Your task to perform on an android device: toggle pop-ups in chrome Image 0: 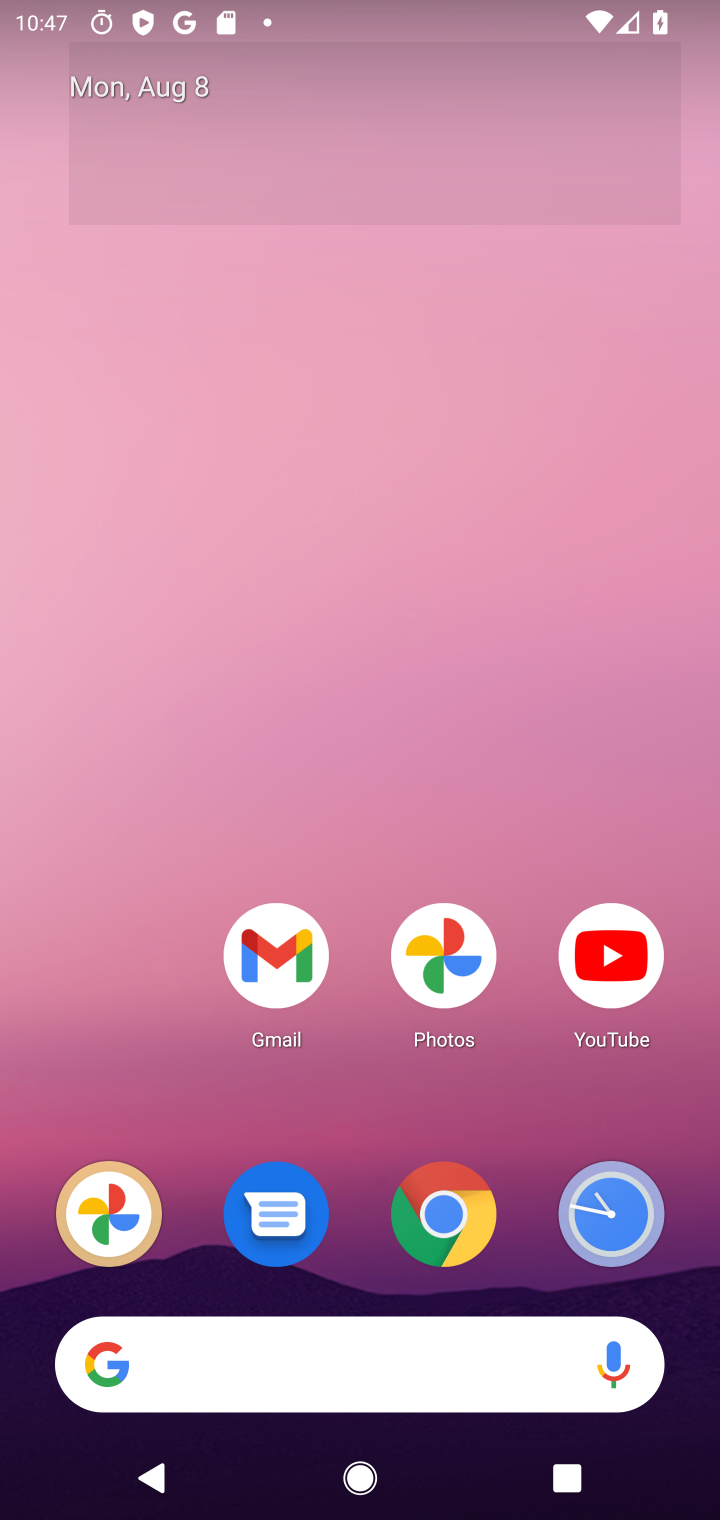
Step 0: click (470, 1223)
Your task to perform on an android device: toggle pop-ups in chrome Image 1: 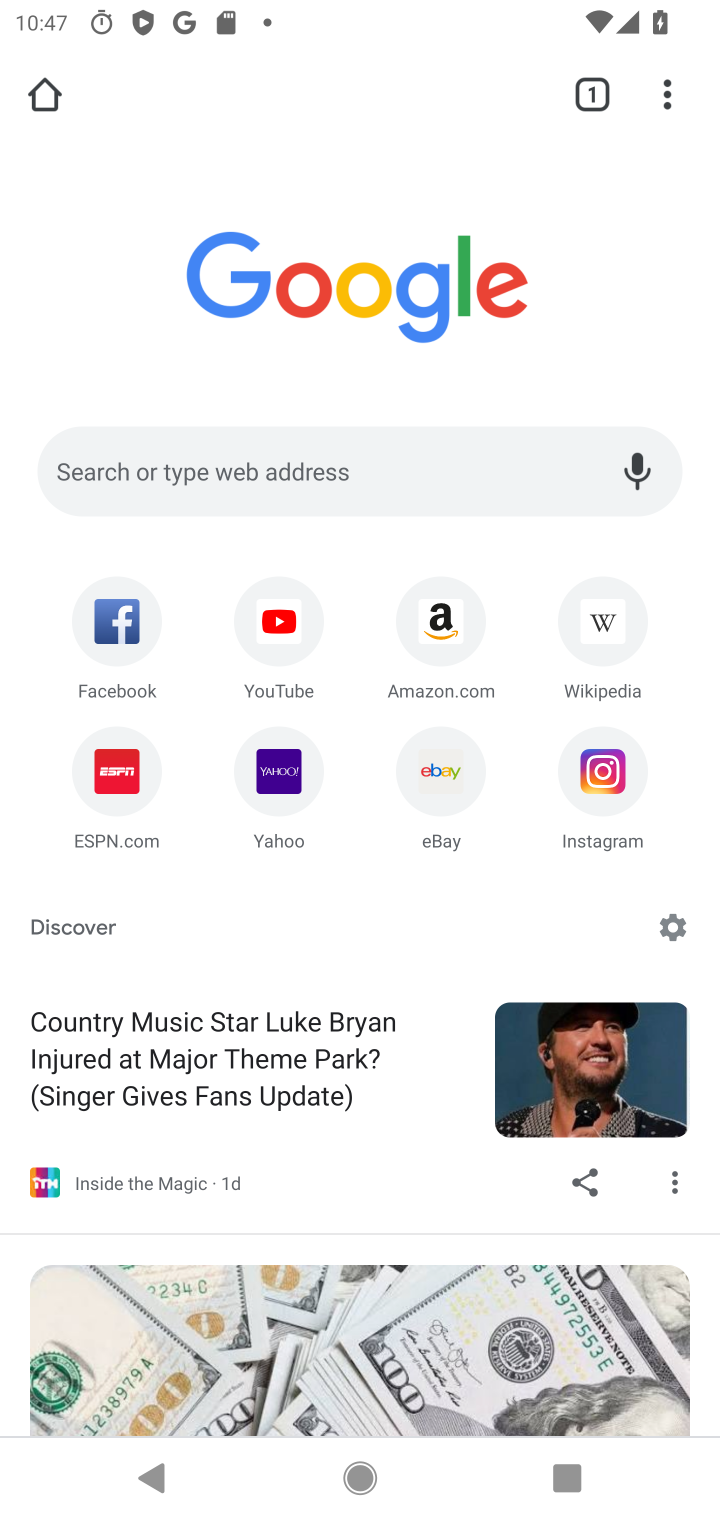
Step 1: click (666, 78)
Your task to perform on an android device: toggle pop-ups in chrome Image 2: 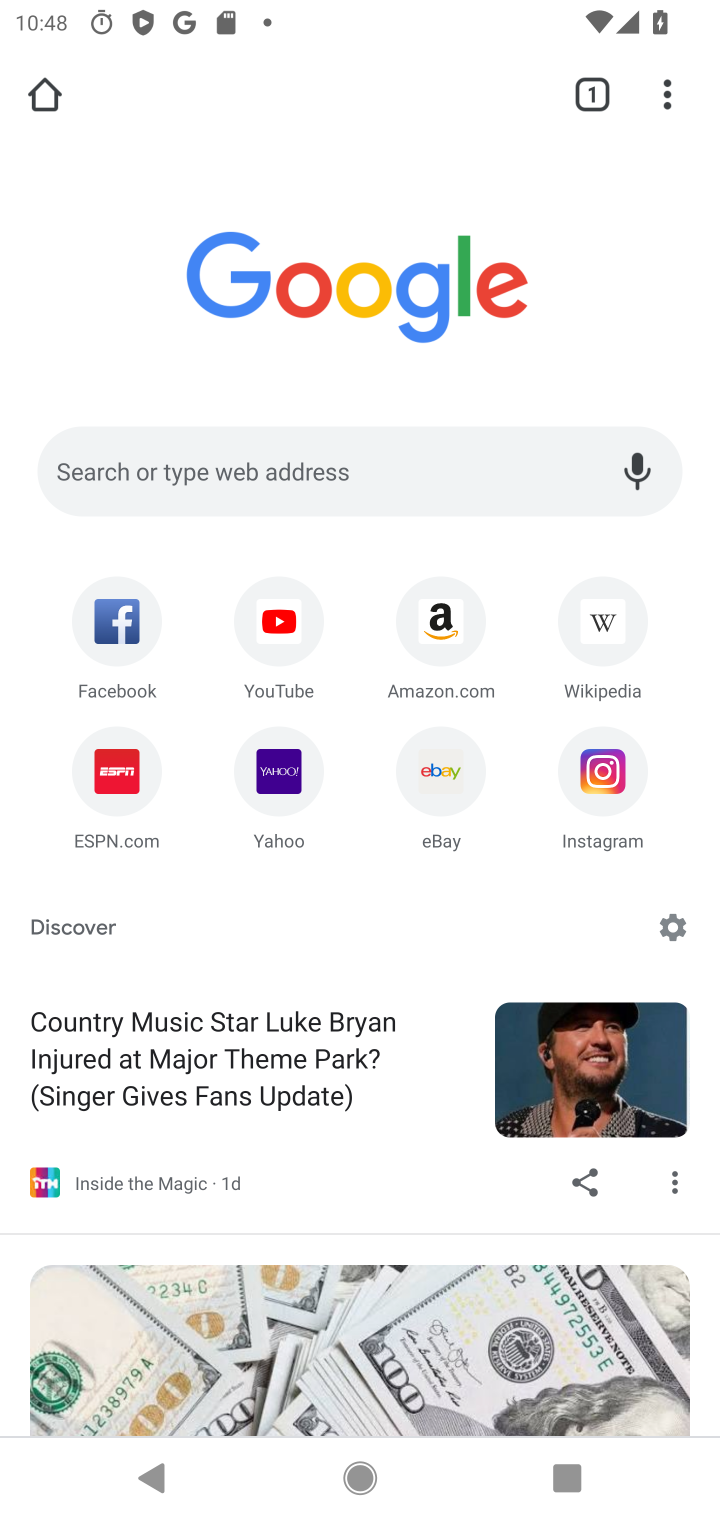
Step 2: click (678, 90)
Your task to perform on an android device: toggle pop-ups in chrome Image 3: 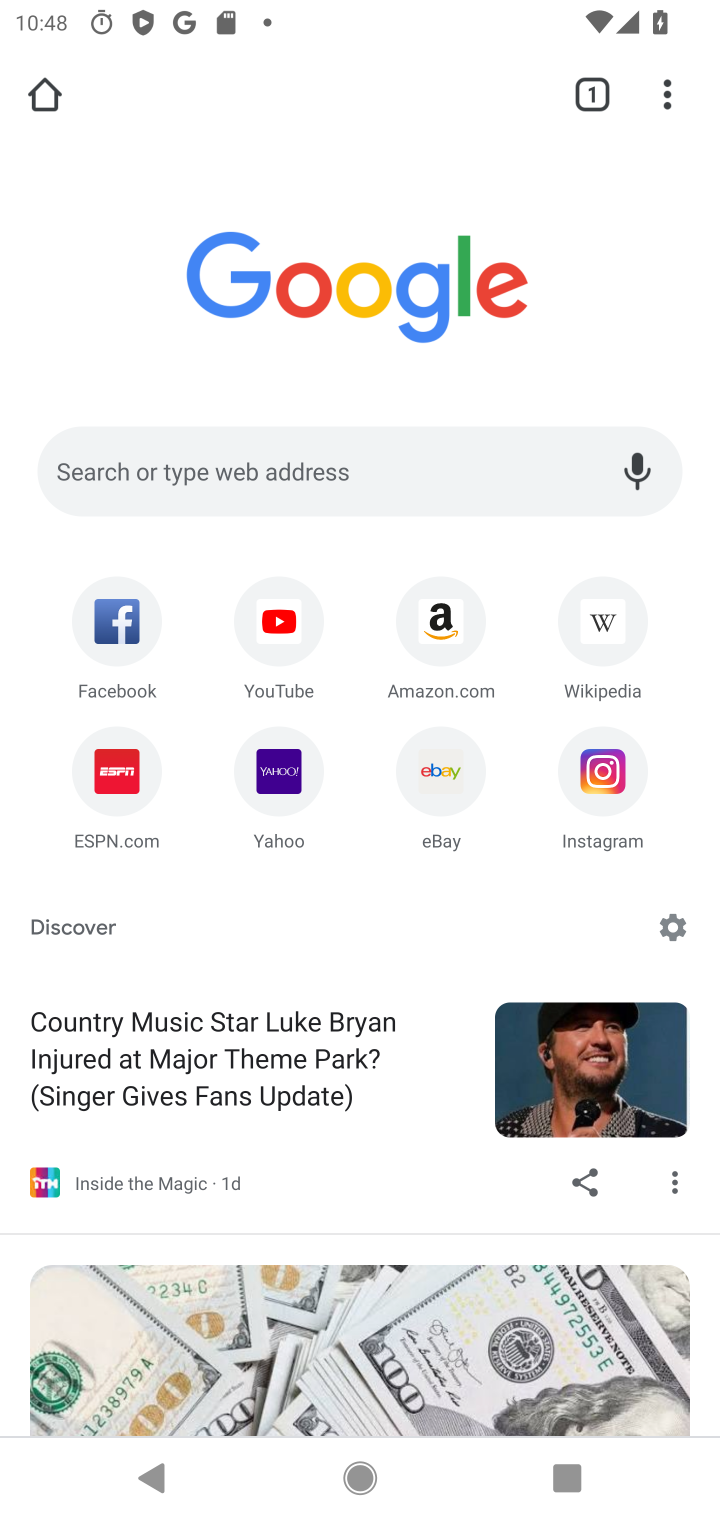
Step 3: click (678, 90)
Your task to perform on an android device: toggle pop-ups in chrome Image 4: 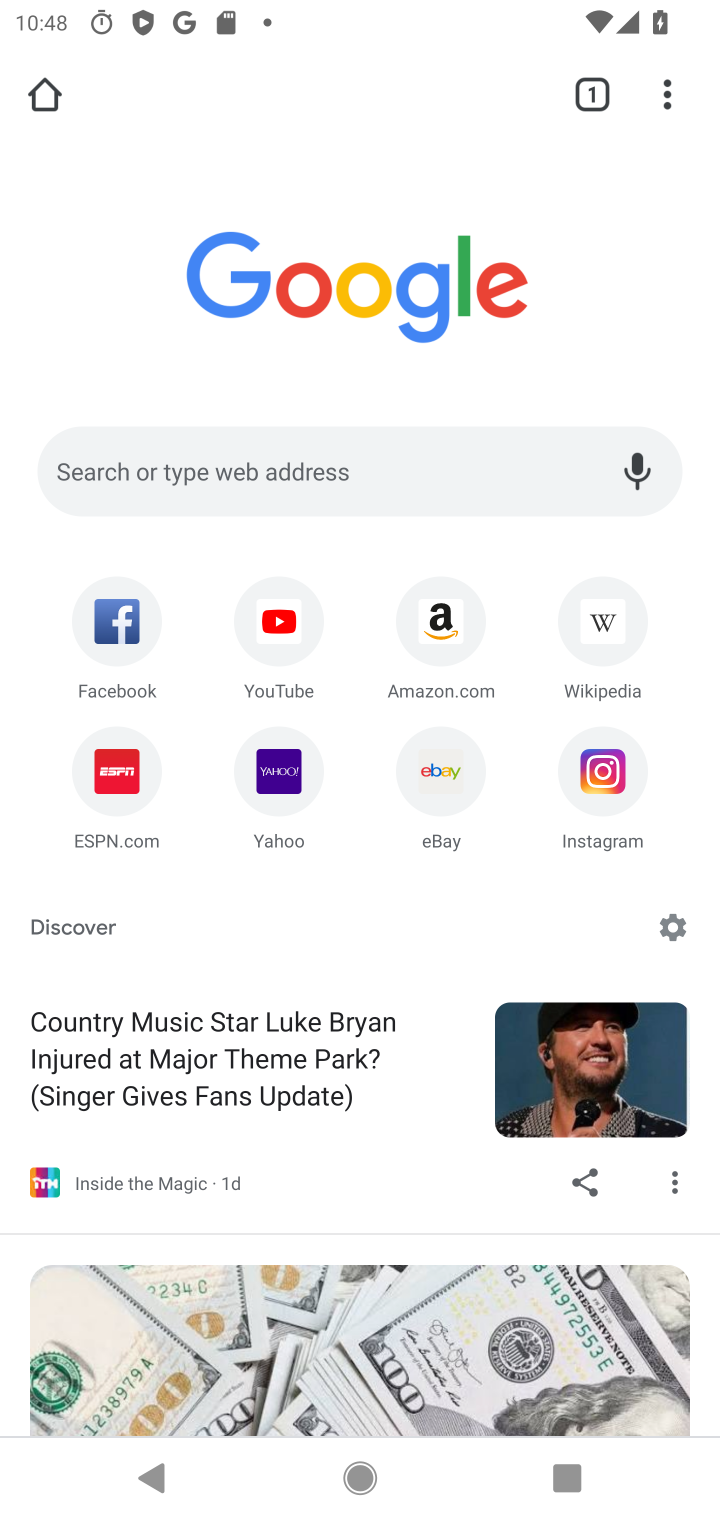
Step 4: click (678, 90)
Your task to perform on an android device: toggle pop-ups in chrome Image 5: 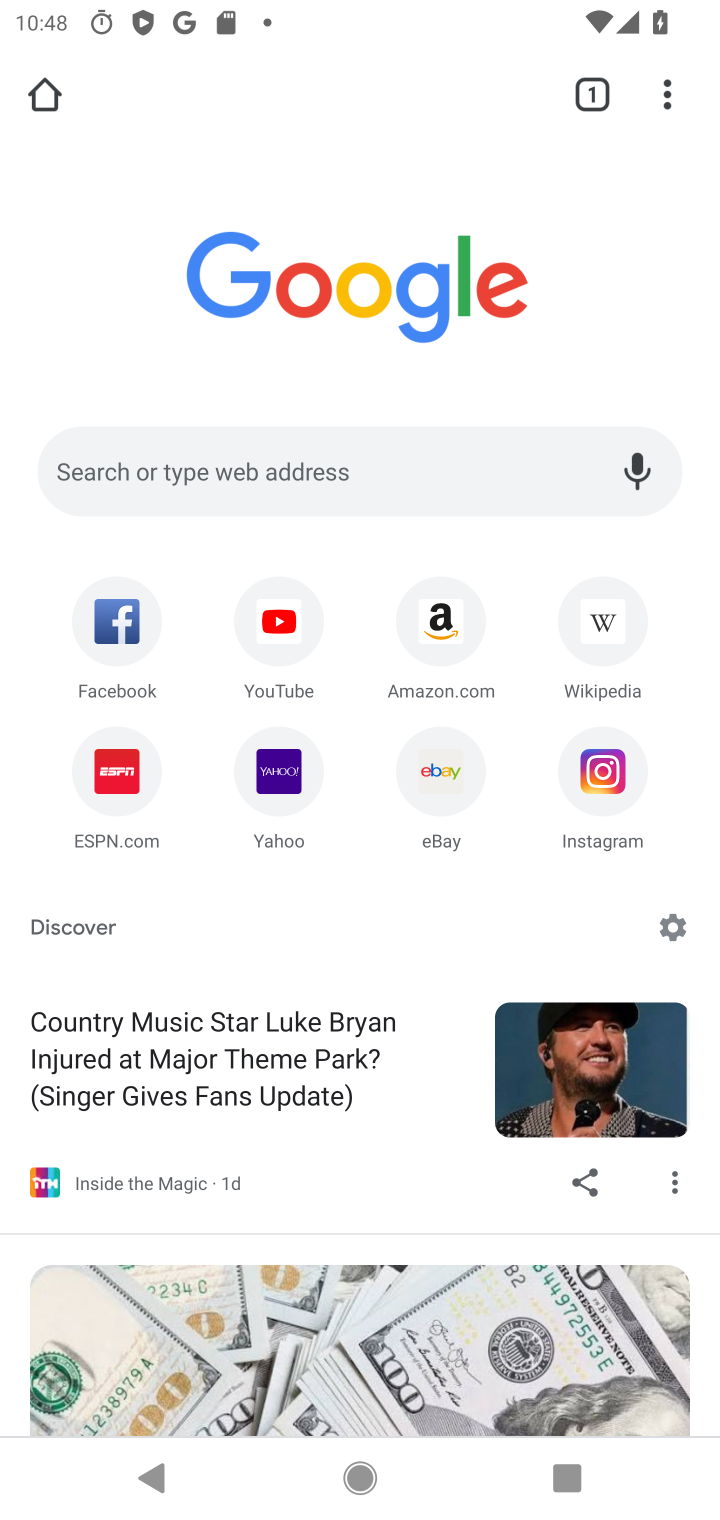
Step 5: task complete